Your task to perform on an android device: Open Wikipedia Image 0: 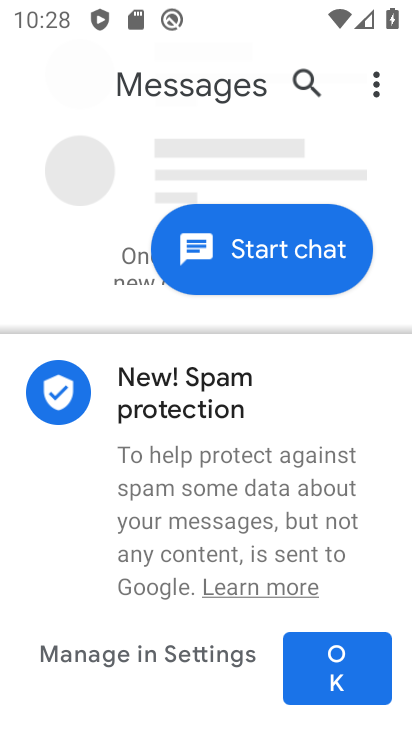
Step 0: press home button
Your task to perform on an android device: Open Wikipedia Image 1: 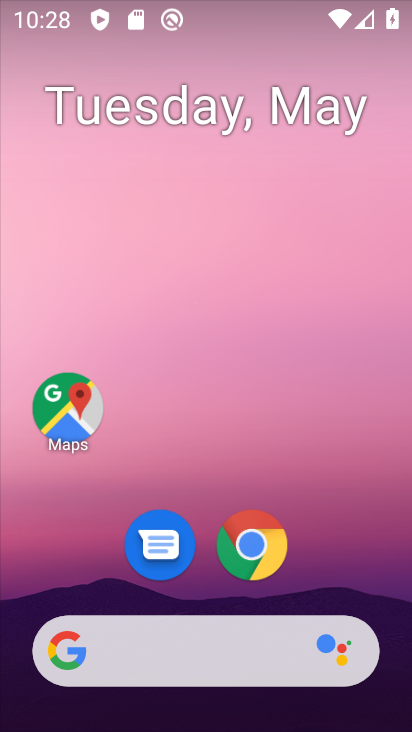
Step 1: click (247, 561)
Your task to perform on an android device: Open Wikipedia Image 2: 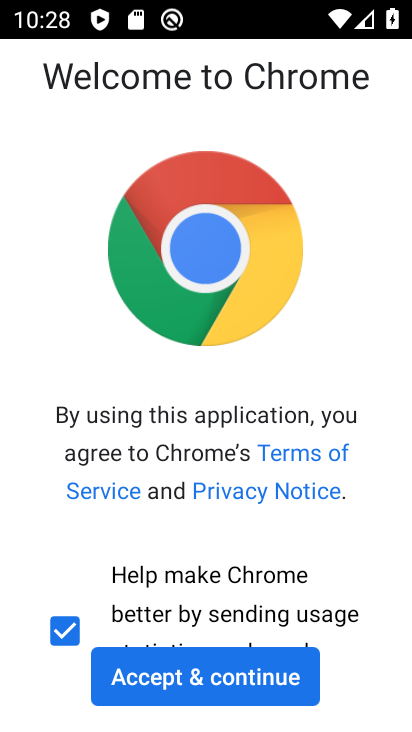
Step 2: click (260, 694)
Your task to perform on an android device: Open Wikipedia Image 3: 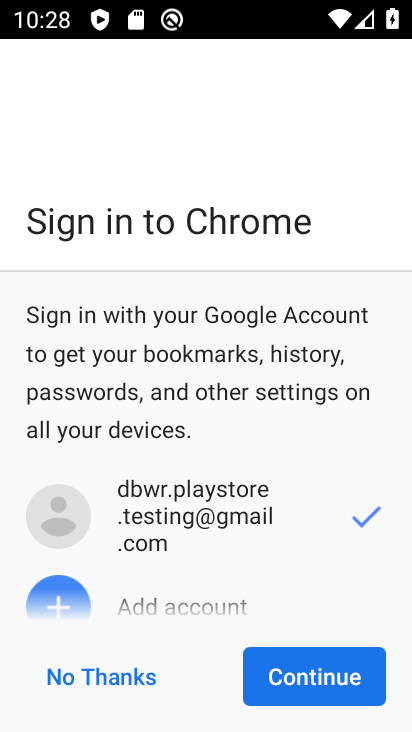
Step 3: click (294, 678)
Your task to perform on an android device: Open Wikipedia Image 4: 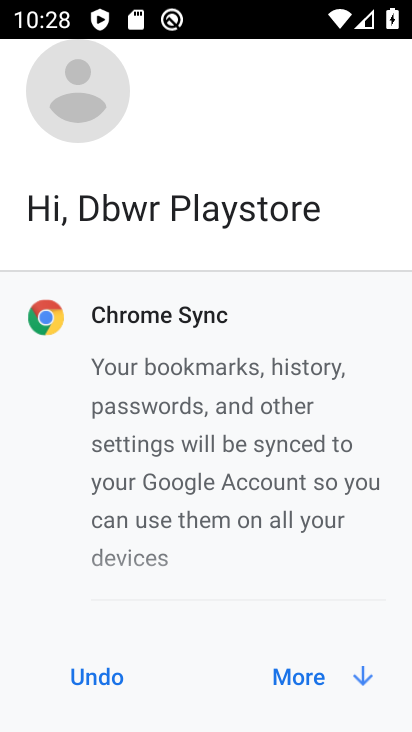
Step 4: click (328, 676)
Your task to perform on an android device: Open Wikipedia Image 5: 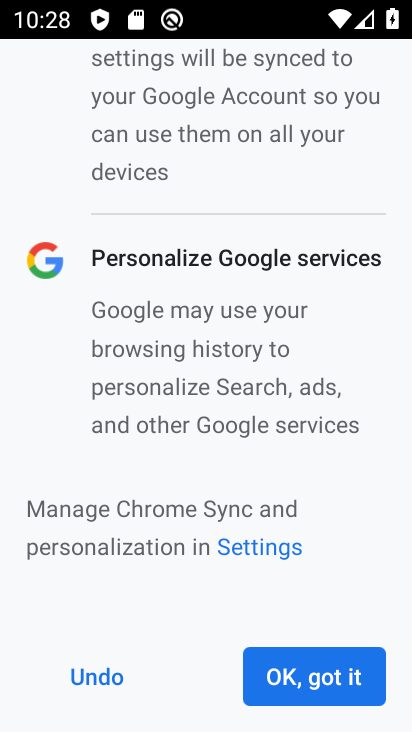
Step 5: click (312, 690)
Your task to perform on an android device: Open Wikipedia Image 6: 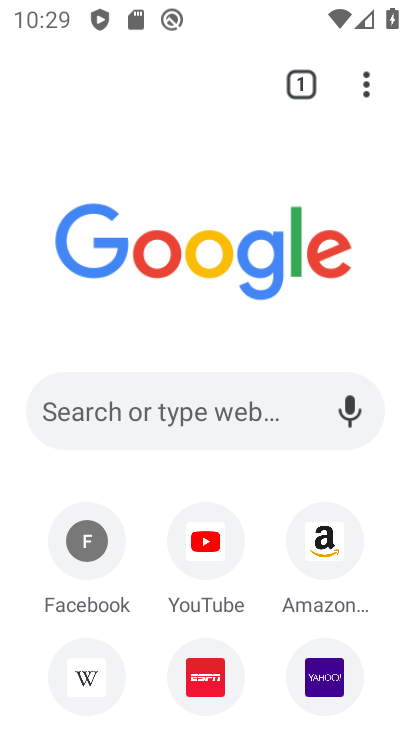
Step 6: click (94, 659)
Your task to perform on an android device: Open Wikipedia Image 7: 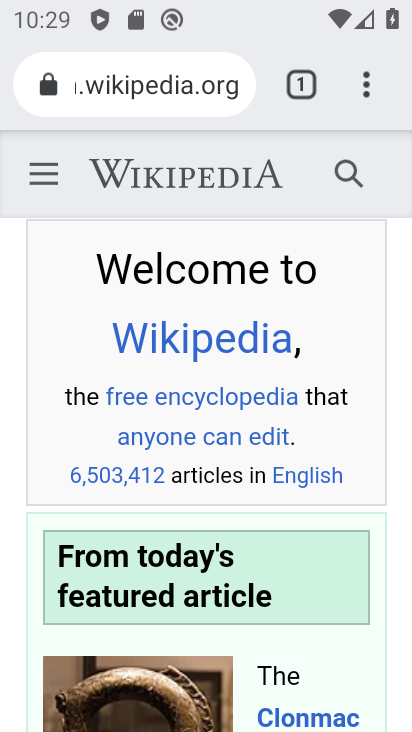
Step 7: task complete